Your task to perform on an android device: open sync settings in chrome Image 0: 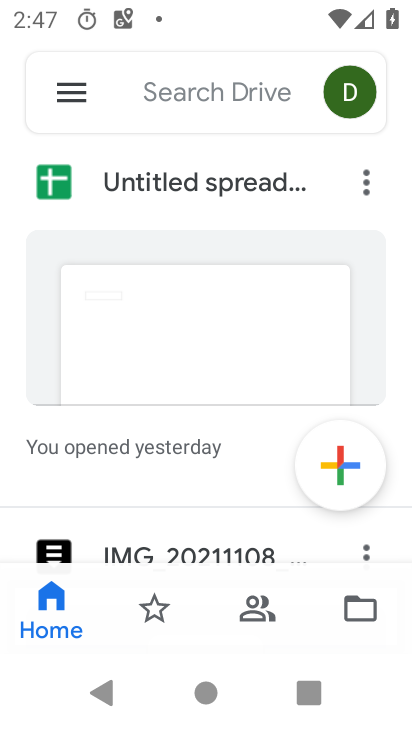
Step 0: press home button
Your task to perform on an android device: open sync settings in chrome Image 1: 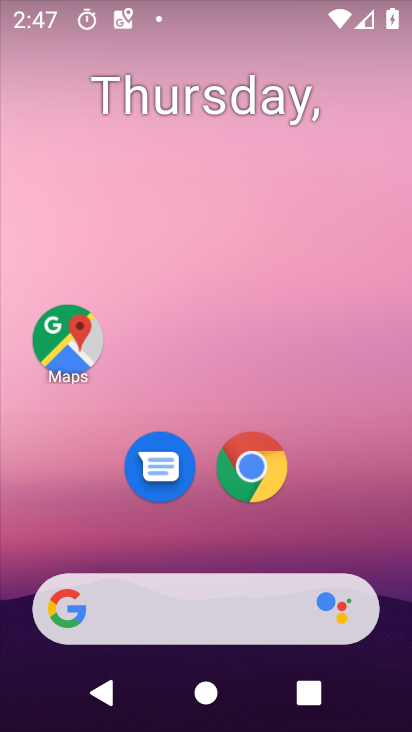
Step 1: click (246, 460)
Your task to perform on an android device: open sync settings in chrome Image 2: 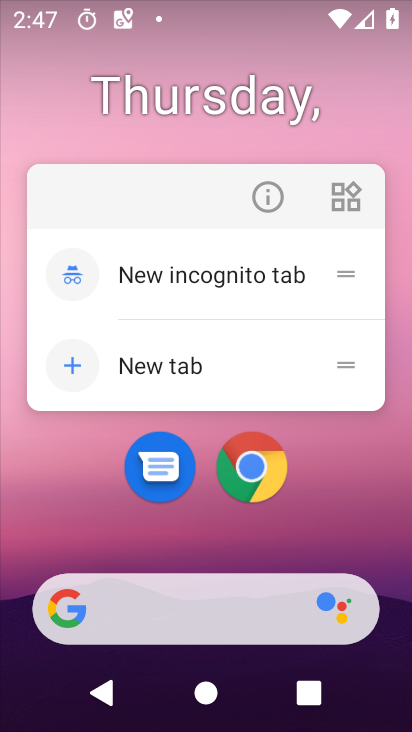
Step 2: click (256, 181)
Your task to perform on an android device: open sync settings in chrome Image 3: 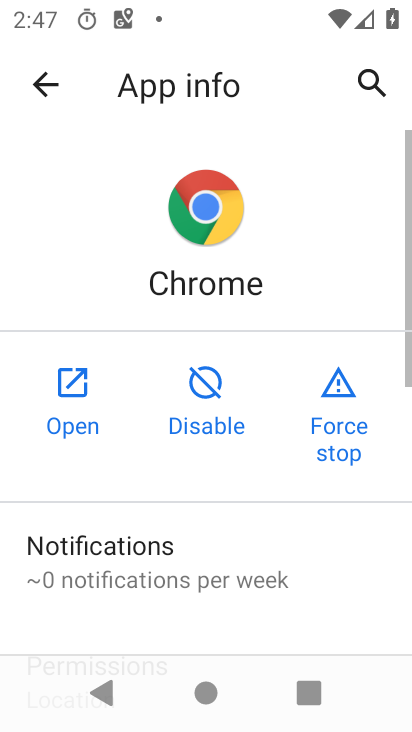
Step 3: click (56, 401)
Your task to perform on an android device: open sync settings in chrome Image 4: 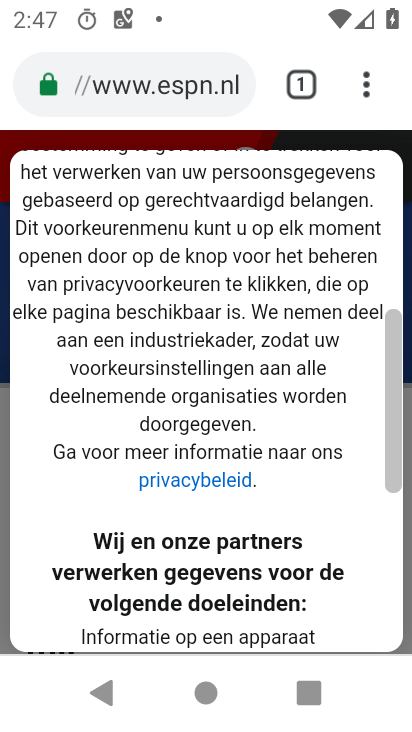
Step 4: click (363, 71)
Your task to perform on an android device: open sync settings in chrome Image 5: 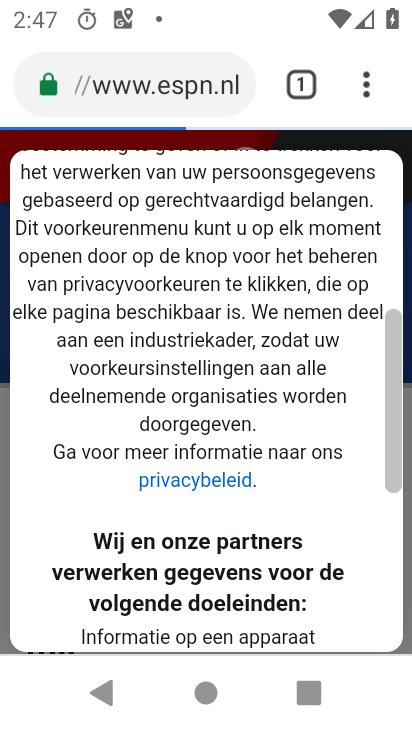
Step 5: click (364, 85)
Your task to perform on an android device: open sync settings in chrome Image 6: 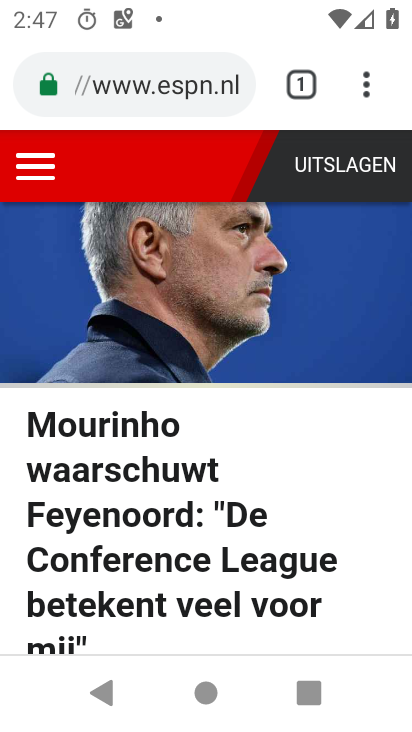
Step 6: click (365, 79)
Your task to perform on an android device: open sync settings in chrome Image 7: 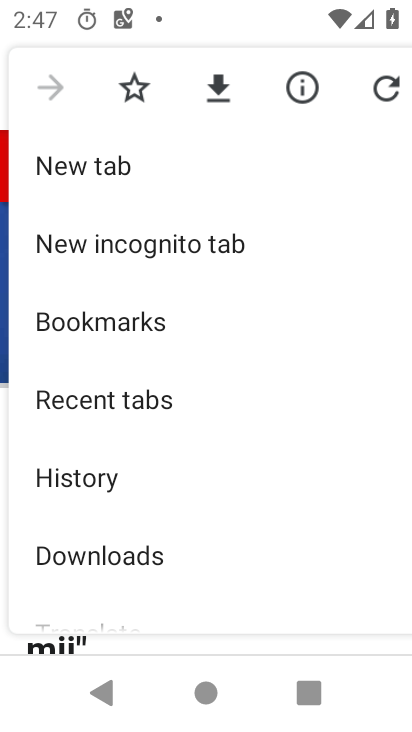
Step 7: drag from (165, 563) to (184, 271)
Your task to perform on an android device: open sync settings in chrome Image 8: 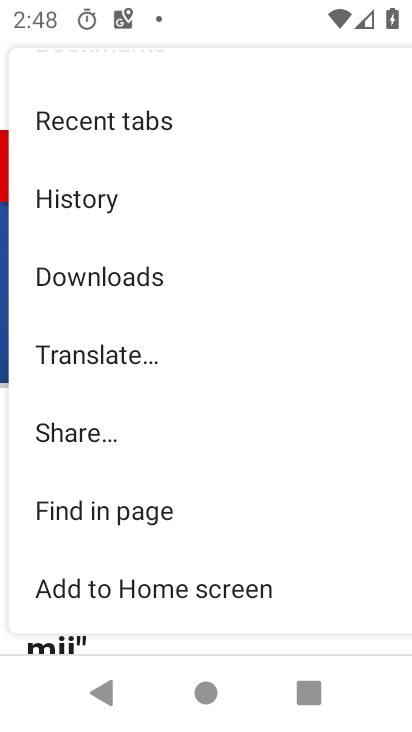
Step 8: drag from (112, 575) to (179, 126)
Your task to perform on an android device: open sync settings in chrome Image 9: 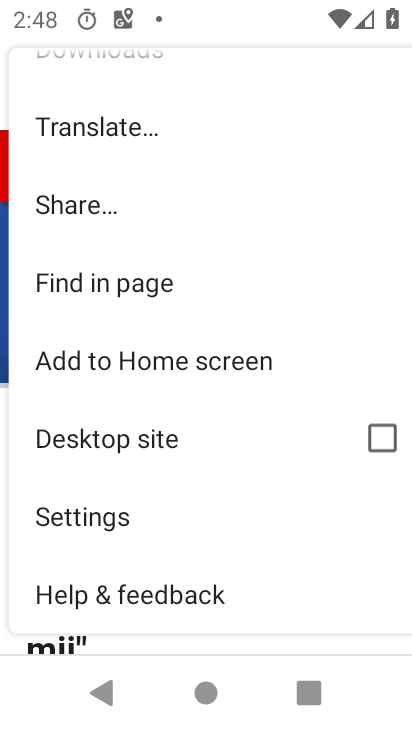
Step 9: click (124, 512)
Your task to perform on an android device: open sync settings in chrome Image 10: 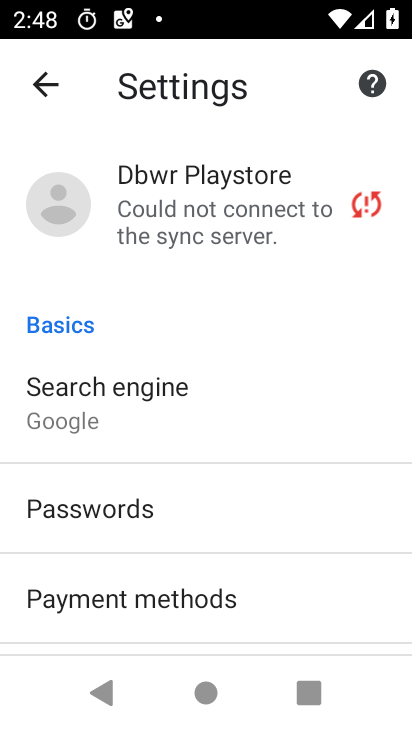
Step 10: drag from (212, 564) to (258, 152)
Your task to perform on an android device: open sync settings in chrome Image 11: 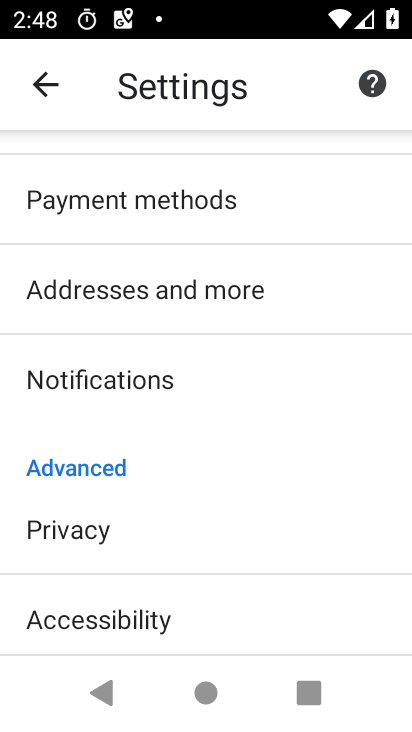
Step 11: drag from (214, 548) to (214, 260)
Your task to perform on an android device: open sync settings in chrome Image 12: 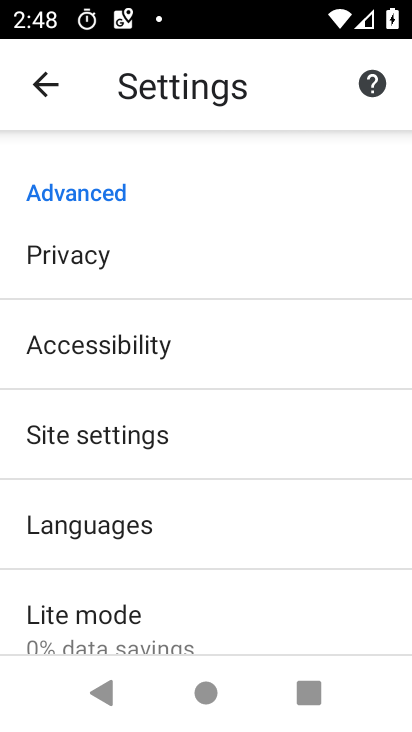
Step 12: drag from (177, 514) to (216, 298)
Your task to perform on an android device: open sync settings in chrome Image 13: 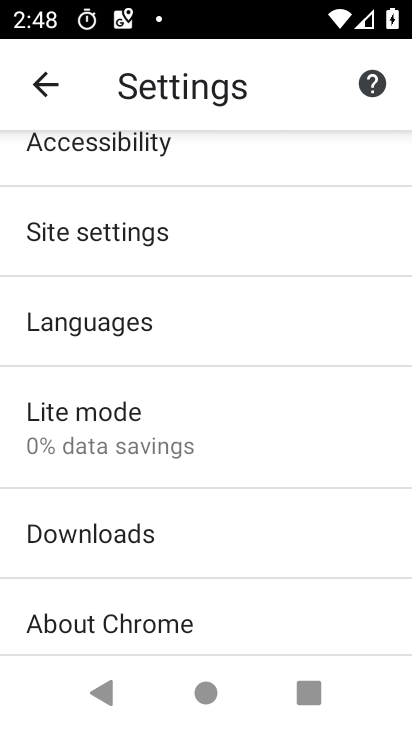
Step 13: drag from (195, 287) to (252, 217)
Your task to perform on an android device: open sync settings in chrome Image 14: 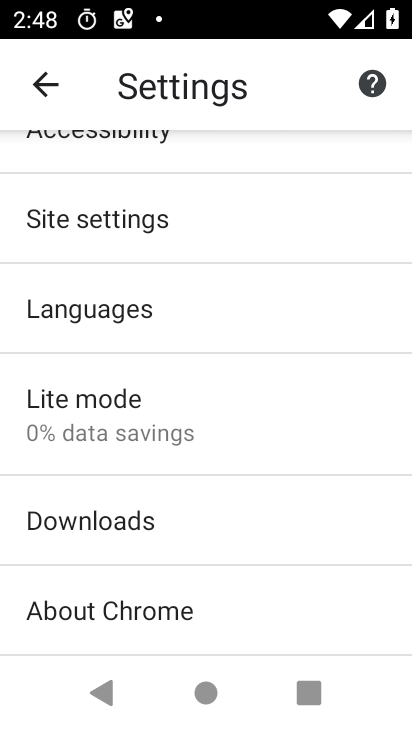
Step 14: drag from (200, 237) to (264, 518)
Your task to perform on an android device: open sync settings in chrome Image 15: 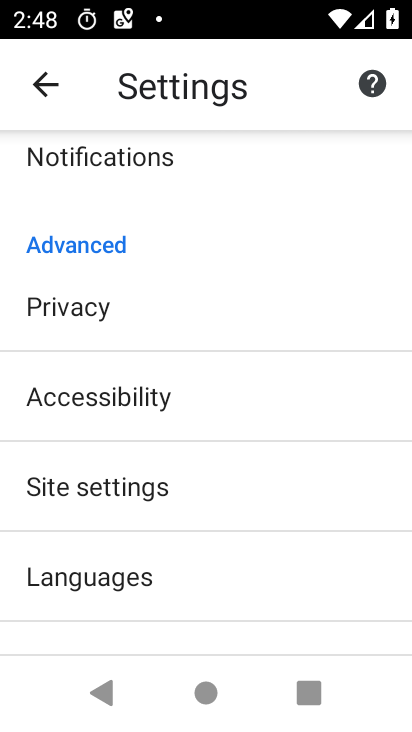
Step 15: click (140, 473)
Your task to perform on an android device: open sync settings in chrome Image 16: 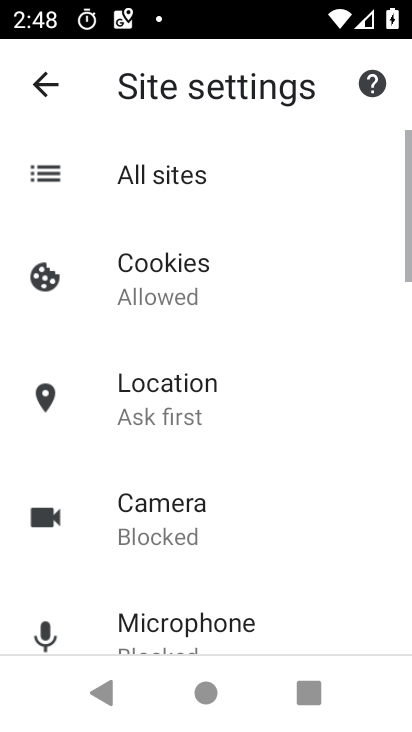
Step 16: drag from (256, 575) to (353, 47)
Your task to perform on an android device: open sync settings in chrome Image 17: 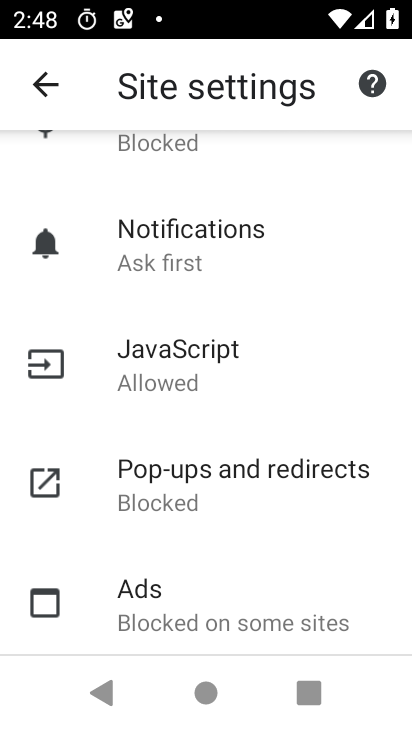
Step 17: drag from (209, 620) to (266, 81)
Your task to perform on an android device: open sync settings in chrome Image 18: 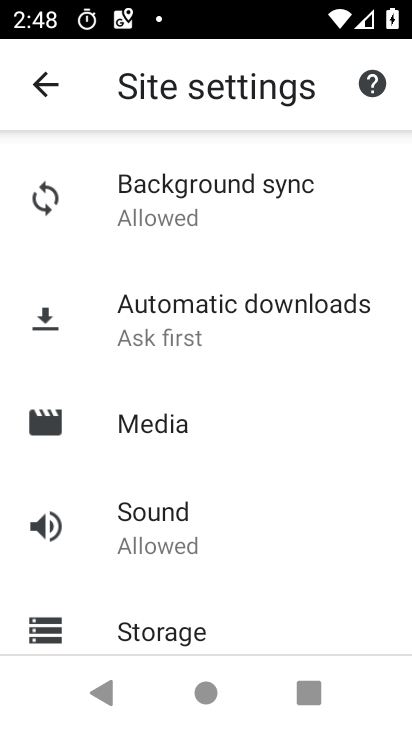
Step 18: click (211, 213)
Your task to perform on an android device: open sync settings in chrome Image 19: 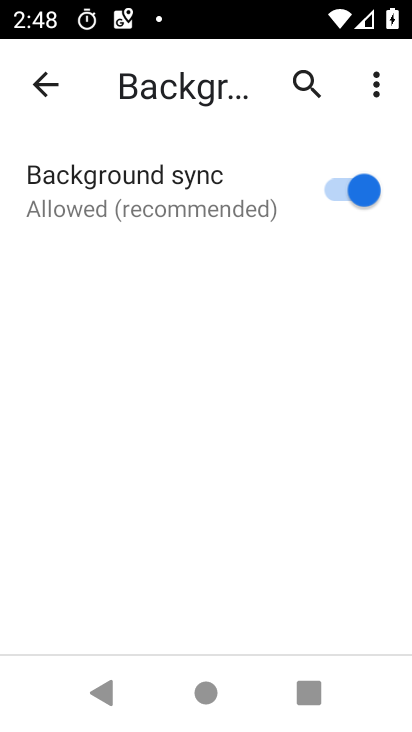
Step 19: task complete